Your task to perform on an android device: Go to Reddit.com Image 0: 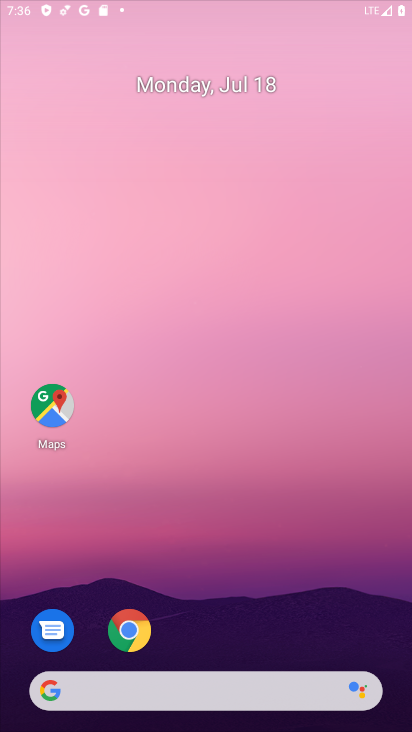
Step 0: drag from (231, 596) to (251, 238)
Your task to perform on an android device: Go to Reddit.com Image 1: 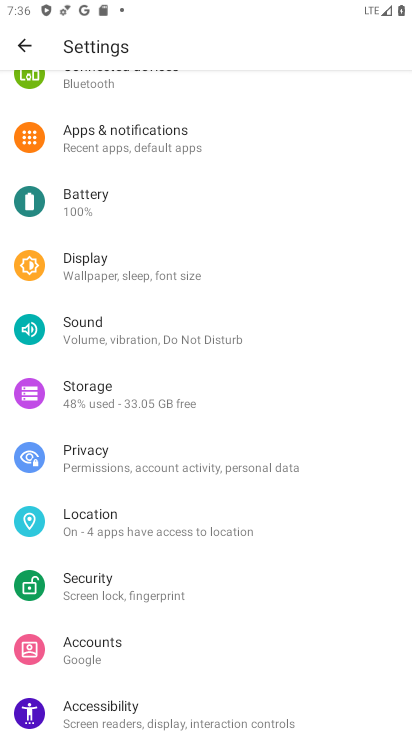
Step 1: press home button
Your task to perform on an android device: Go to Reddit.com Image 2: 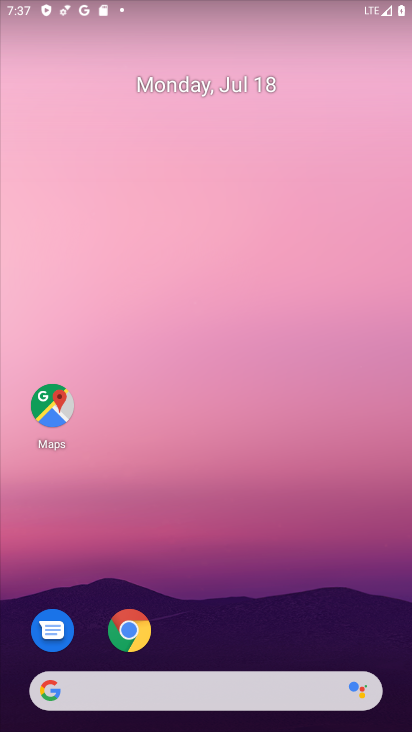
Step 2: drag from (191, 667) to (266, 133)
Your task to perform on an android device: Go to Reddit.com Image 3: 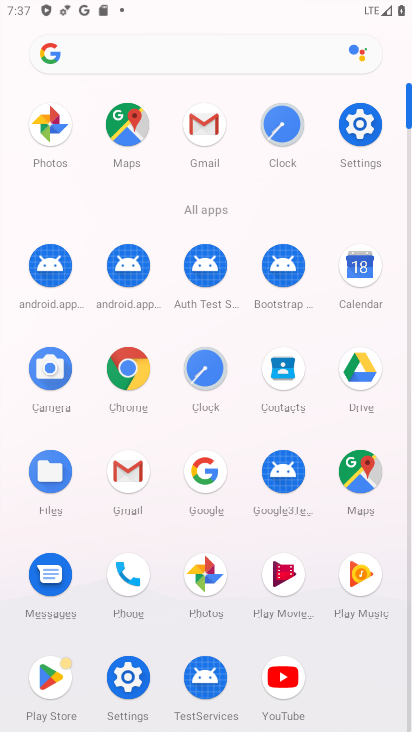
Step 3: click (135, 375)
Your task to perform on an android device: Go to Reddit.com Image 4: 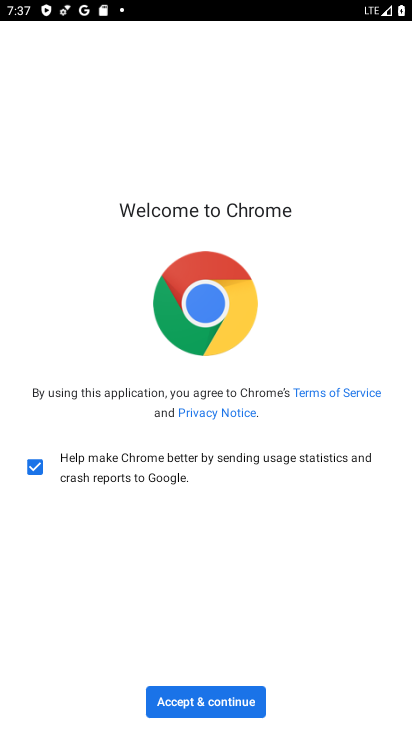
Step 4: click (213, 699)
Your task to perform on an android device: Go to Reddit.com Image 5: 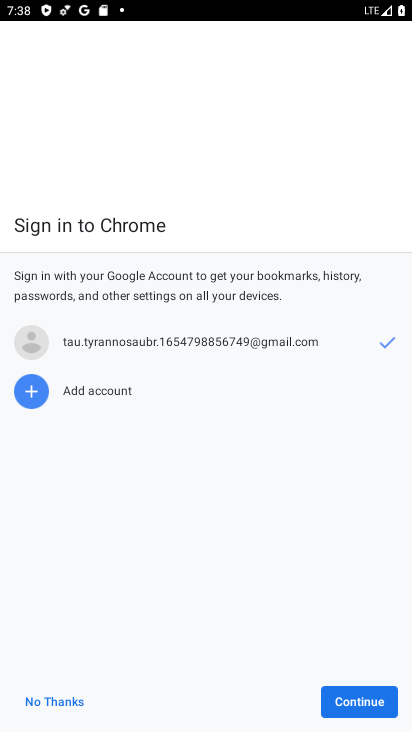
Step 5: click (358, 712)
Your task to perform on an android device: Go to Reddit.com Image 6: 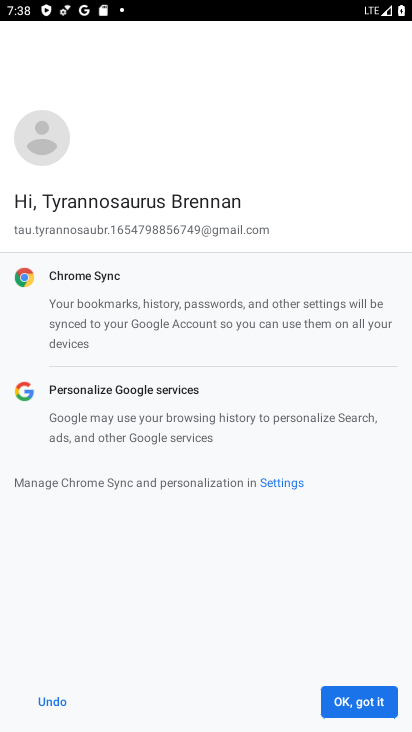
Step 6: click (384, 710)
Your task to perform on an android device: Go to Reddit.com Image 7: 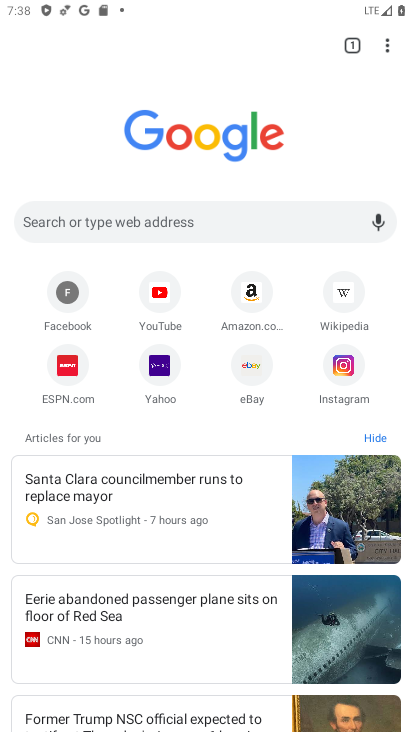
Step 7: click (201, 215)
Your task to perform on an android device: Go to Reddit.com Image 8: 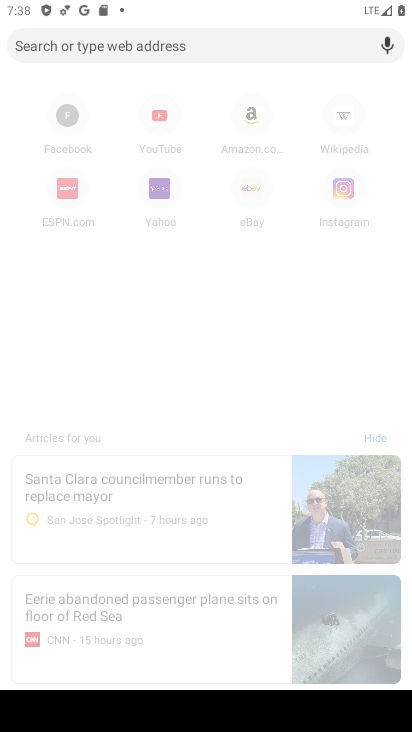
Step 8: type "reddit"
Your task to perform on an android device: Go to Reddit.com Image 9: 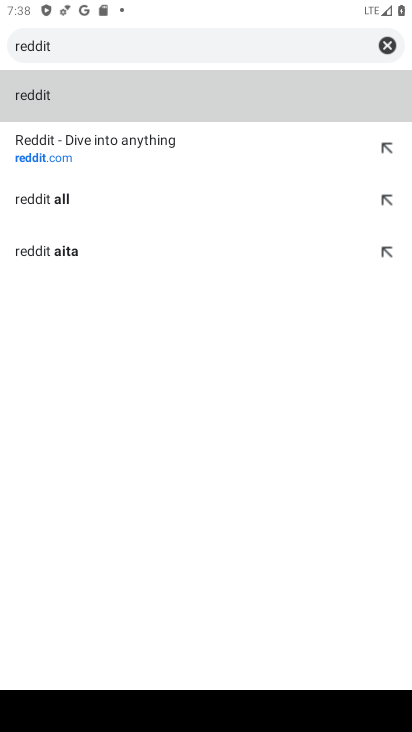
Step 9: click (161, 162)
Your task to perform on an android device: Go to Reddit.com Image 10: 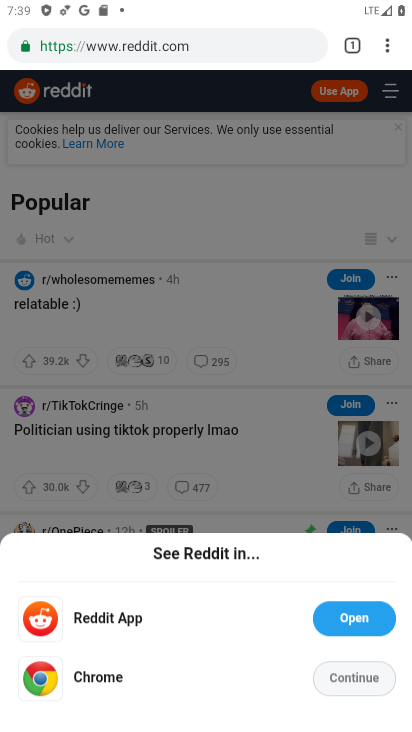
Step 10: task complete